Your task to perform on an android device: What's the weather? Image 0: 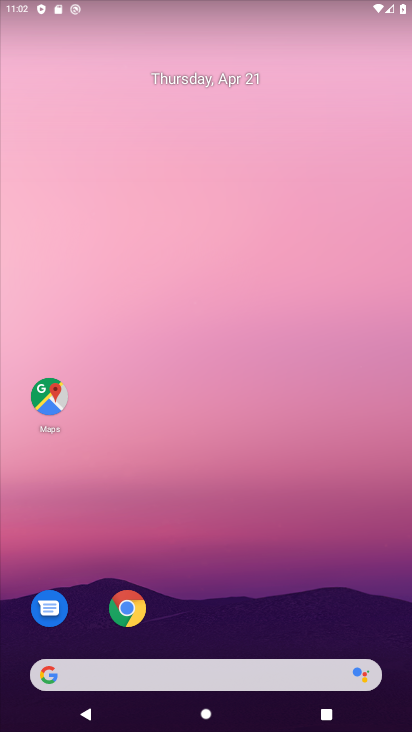
Step 0: click (136, 619)
Your task to perform on an android device: What's the weather? Image 1: 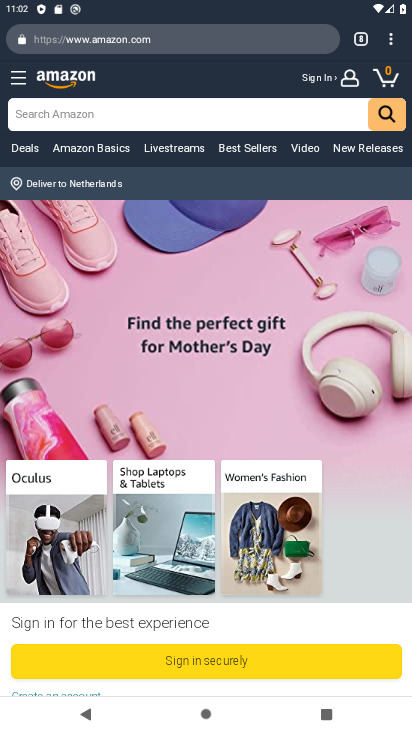
Step 1: click (360, 38)
Your task to perform on an android device: What's the weather? Image 2: 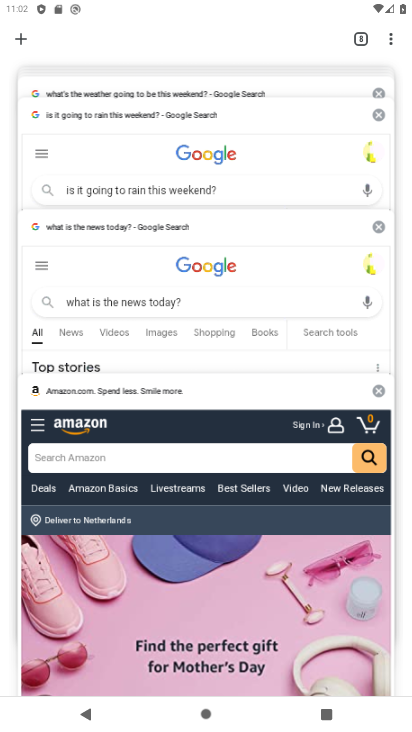
Step 2: drag from (163, 136) to (129, 419)
Your task to perform on an android device: What's the weather? Image 3: 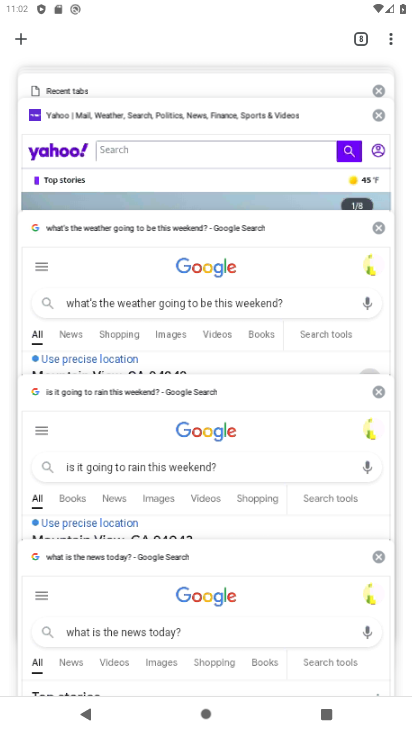
Step 3: drag from (158, 203) to (106, 466)
Your task to perform on an android device: What's the weather? Image 4: 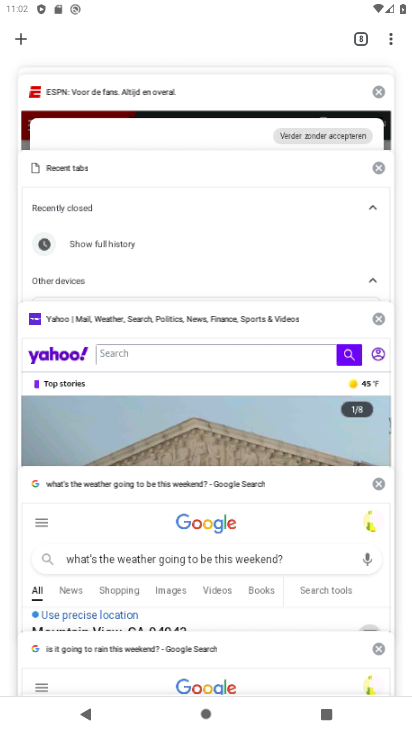
Step 4: click (18, 40)
Your task to perform on an android device: What's the weather? Image 5: 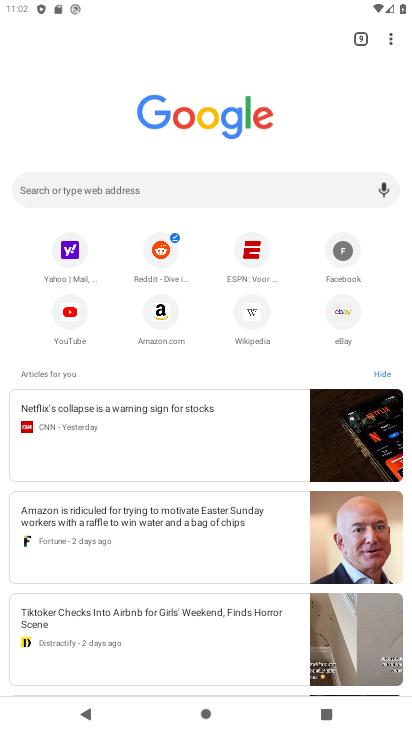
Step 5: click (70, 196)
Your task to perform on an android device: What's the weather? Image 6: 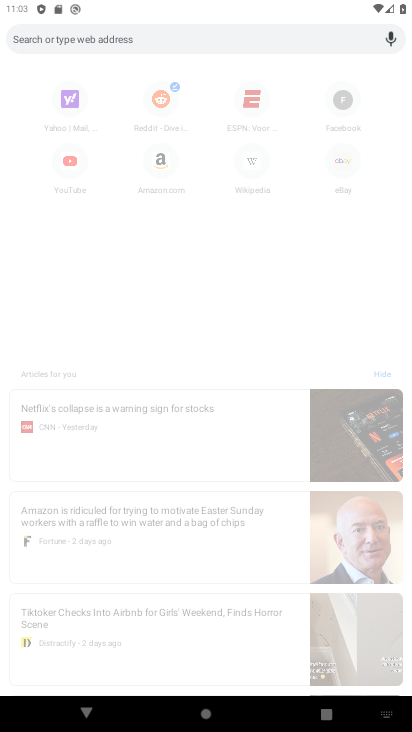
Step 6: type "what's the weather"
Your task to perform on an android device: What's the weather? Image 7: 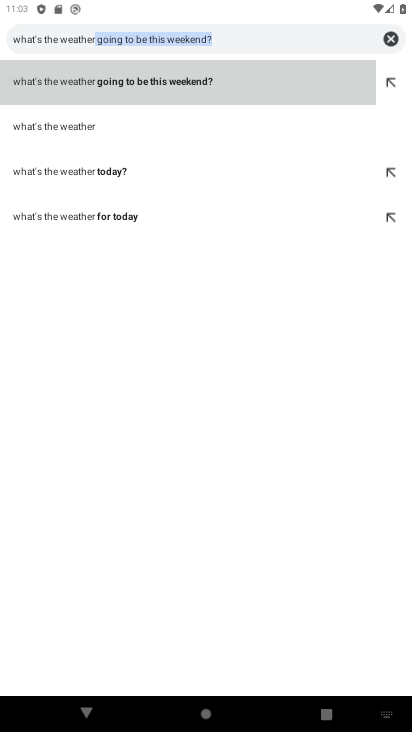
Step 7: click (92, 126)
Your task to perform on an android device: What's the weather? Image 8: 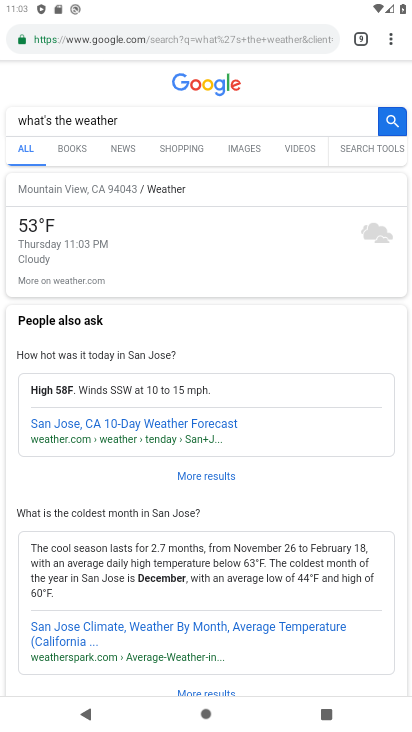
Step 8: task complete